Your task to perform on an android device: refresh tabs in the chrome app Image 0: 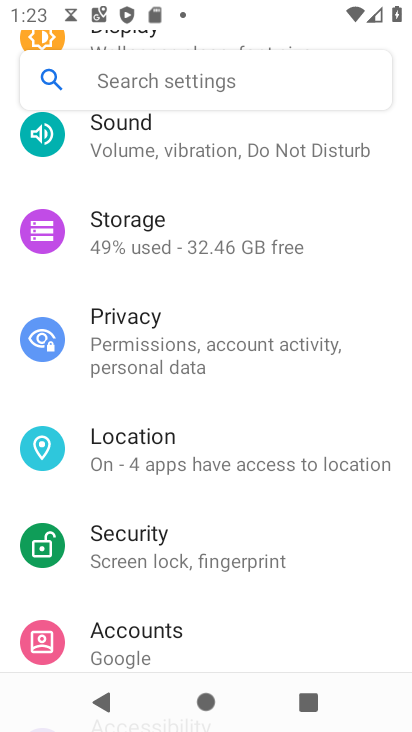
Step 0: drag from (205, 662) to (238, 273)
Your task to perform on an android device: refresh tabs in the chrome app Image 1: 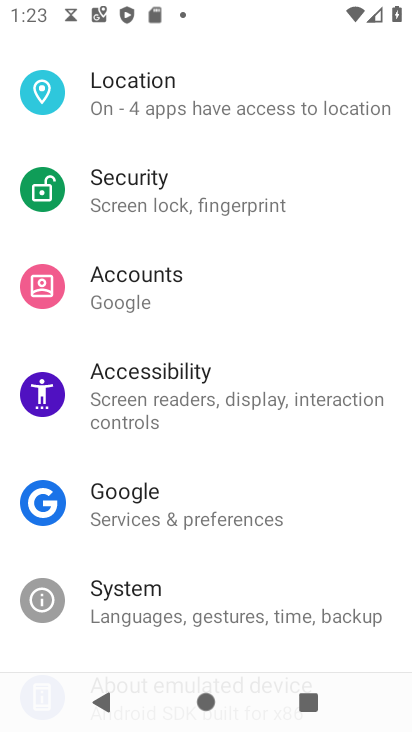
Step 1: drag from (238, 212) to (249, 588)
Your task to perform on an android device: refresh tabs in the chrome app Image 2: 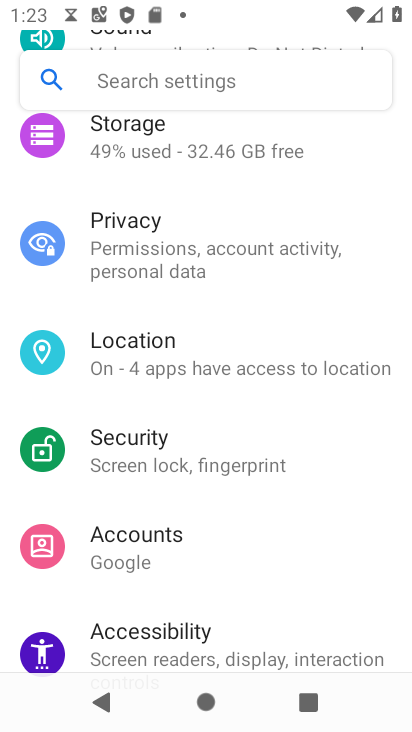
Step 2: drag from (205, 183) to (298, 691)
Your task to perform on an android device: refresh tabs in the chrome app Image 3: 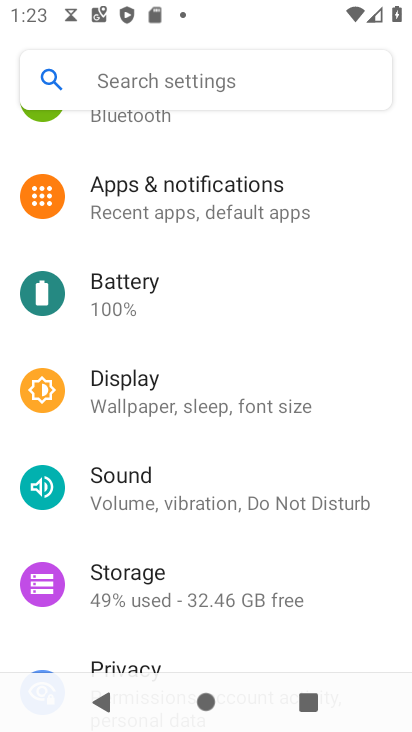
Step 3: press home button
Your task to perform on an android device: refresh tabs in the chrome app Image 4: 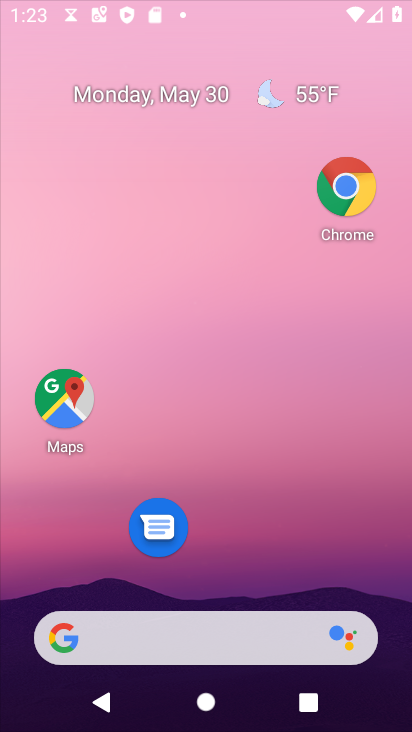
Step 4: drag from (226, 636) to (246, 269)
Your task to perform on an android device: refresh tabs in the chrome app Image 5: 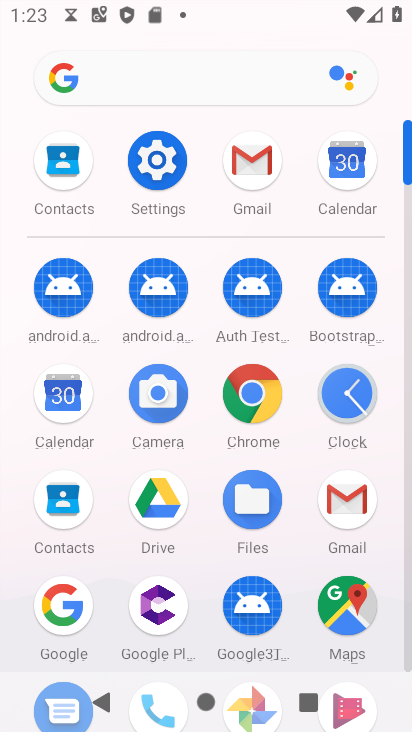
Step 5: click (246, 387)
Your task to perform on an android device: refresh tabs in the chrome app Image 6: 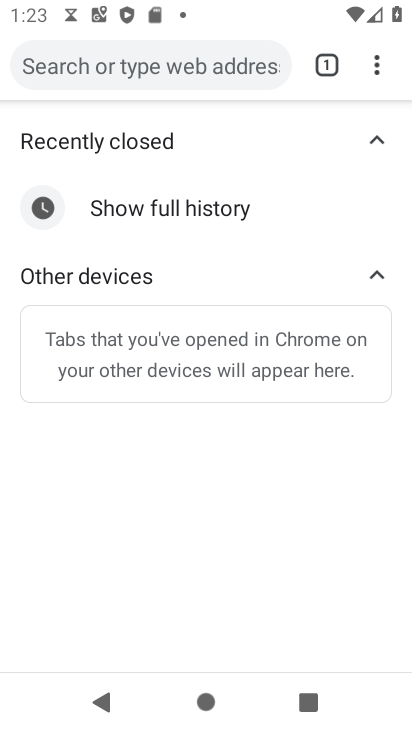
Step 6: click (373, 58)
Your task to perform on an android device: refresh tabs in the chrome app Image 7: 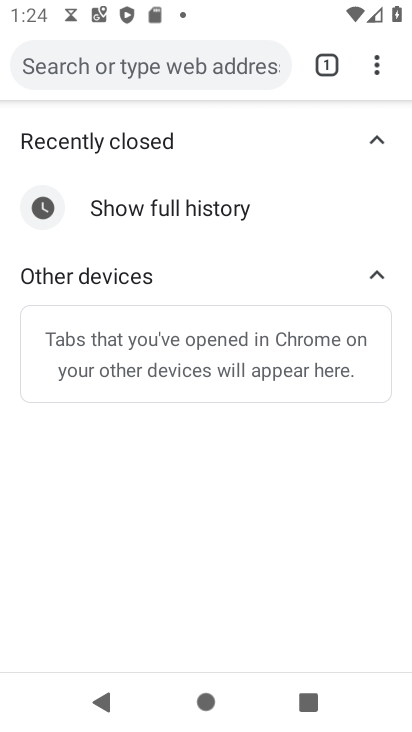
Step 7: task complete